Your task to perform on an android device: make emails show in primary in the gmail app Image 0: 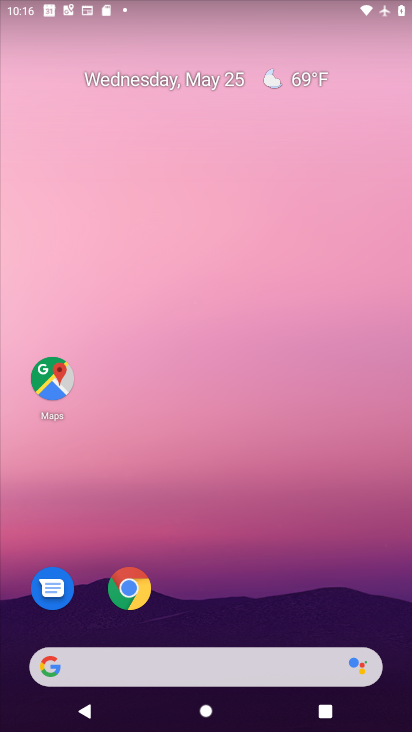
Step 0: drag from (376, 606) to (383, 189)
Your task to perform on an android device: make emails show in primary in the gmail app Image 1: 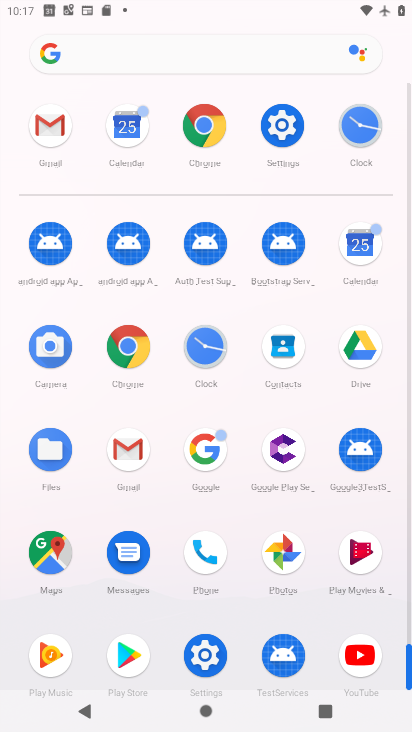
Step 1: click (144, 452)
Your task to perform on an android device: make emails show in primary in the gmail app Image 2: 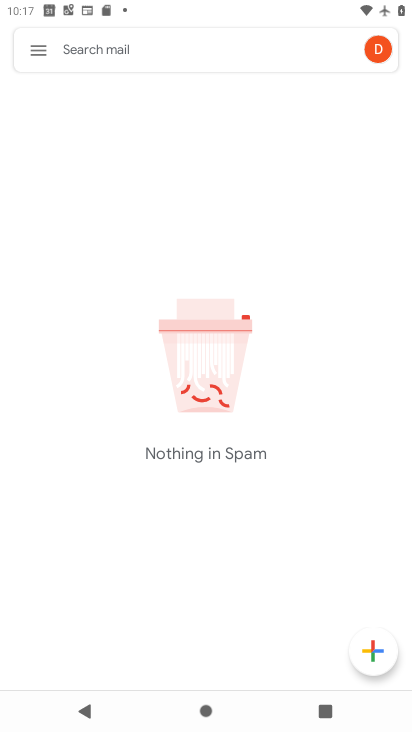
Step 2: click (41, 50)
Your task to perform on an android device: make emails show in primary in the gmail app Image 3: 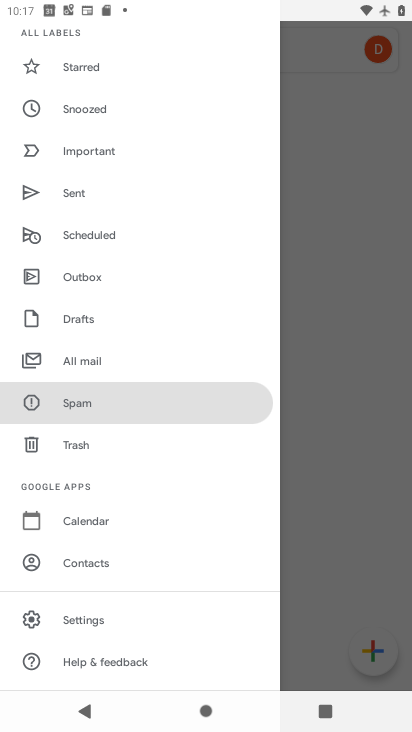
Step 3: drag from (217, 271) to (207, 348)
Your task to perform on an android device: make emails show in primary in the gmail app Image 4: 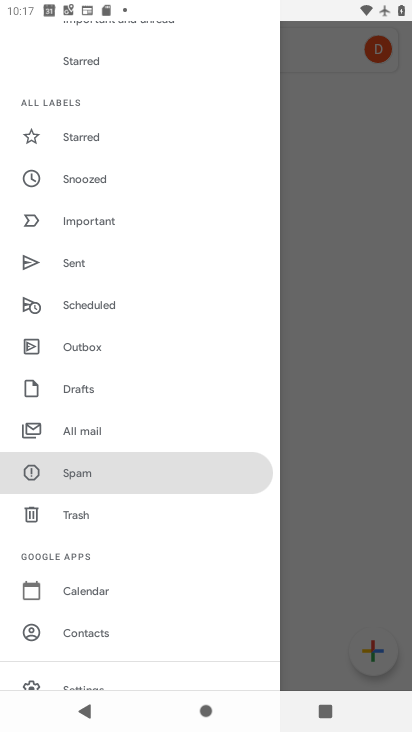
Step 4: drag from (210, 200) to (217, 289)
Your task to perform on an android device: make emails show in primary in the gmail app Image 5: 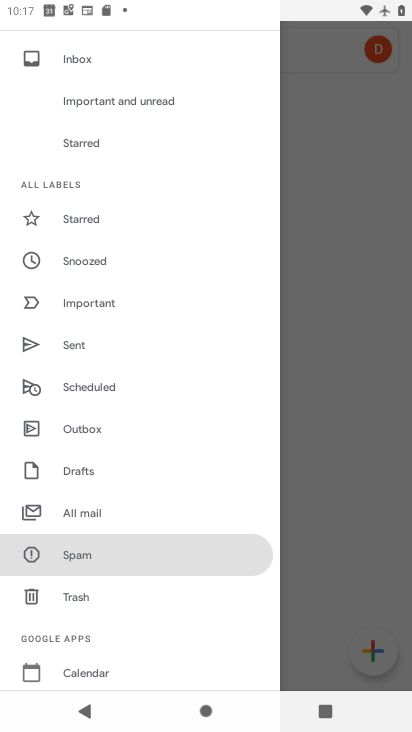
Step 5: drag from (210, 278) to (199, 417)
Your task to perform on an android device: make emails show in primary in the gmail app Image 6: 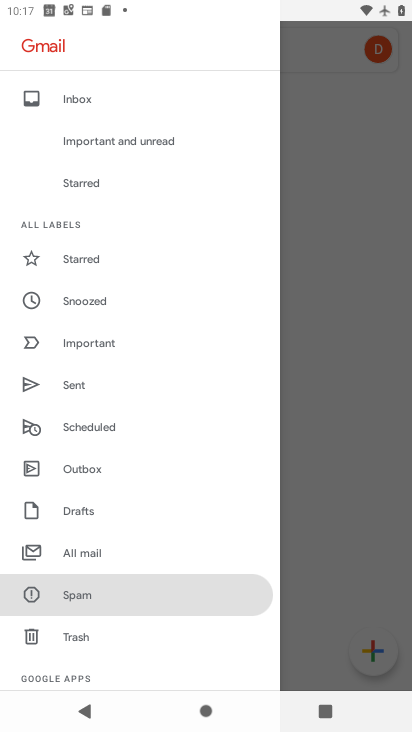
Step 6: drag from (212, 458) to (221, 400)
Your task to perform on an android device: make emails show in primary in the gmail app Image 7: 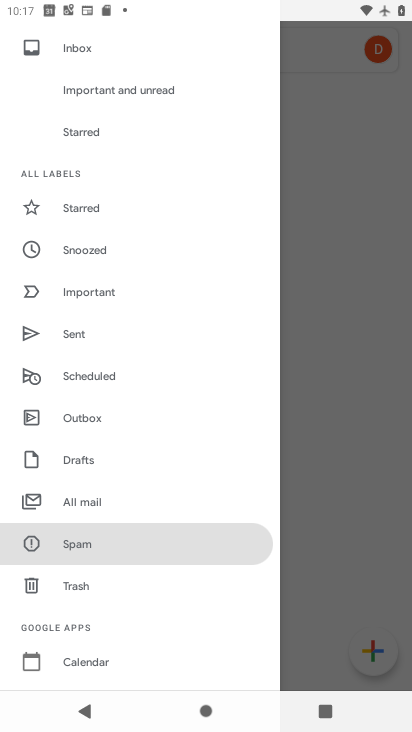
Step 7: drag from (221, 468) to (239, 415)
Your task to perform on an android device: make emails show in primary in the gmail app Image 8: 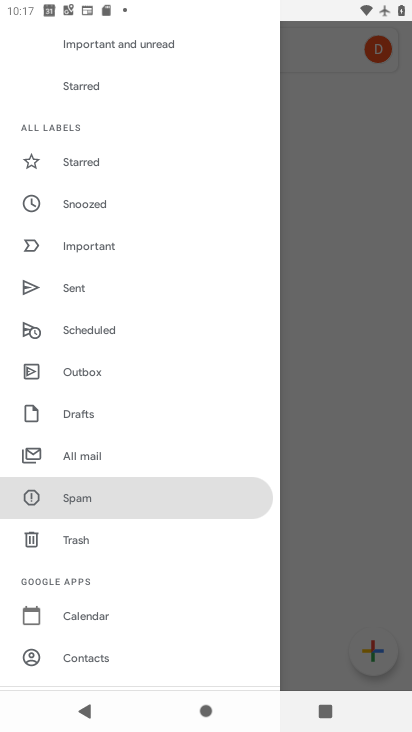
Step 8: drag from (256, 487) to (246, 442)
Your task to perform on an android device: make emails show in primary in the gmail app Image 9: 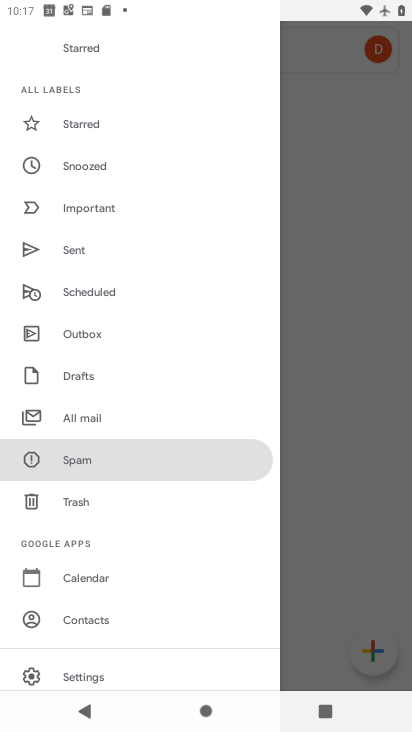
Step 9: drag from (227, 498) to (216, 419)
Your task to perform on an android device: make emails show in primary in the gmail app Image 10: 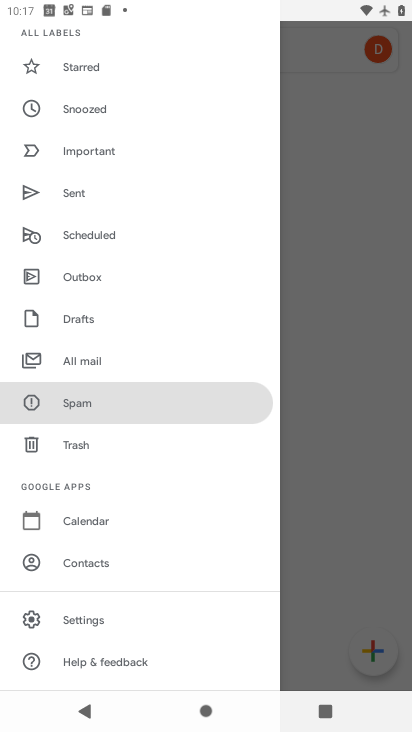
Step 10: drag from (205, 504) to (208, 410)
Your task to perform on an android device: make emails show in primary in the gmail app Image 11: 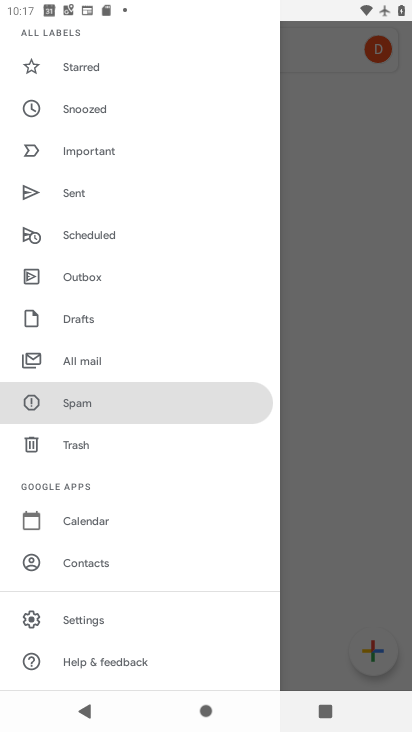
Step 11: click (95, 621)
Your task to perform on an android device: make emails show in primary in the gmail app Image 12: 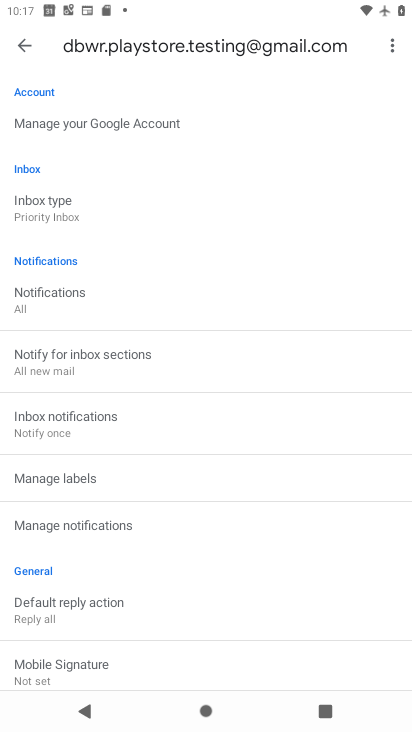
Step 12: drag from (221, 416) to (244, 368)
Your task to perform on an android device: make emails show in primary in the gmail app Image 13: 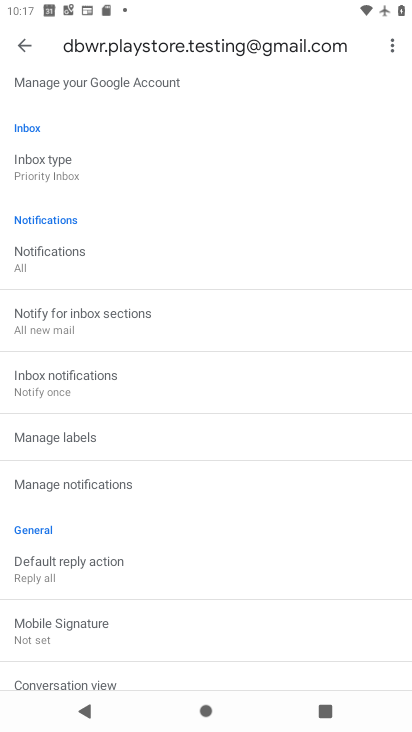
Step 13: drag from (256, 440) to (274, 385)
Your task to perform on an android device: make emails show in primary in the gmail app Image 14: 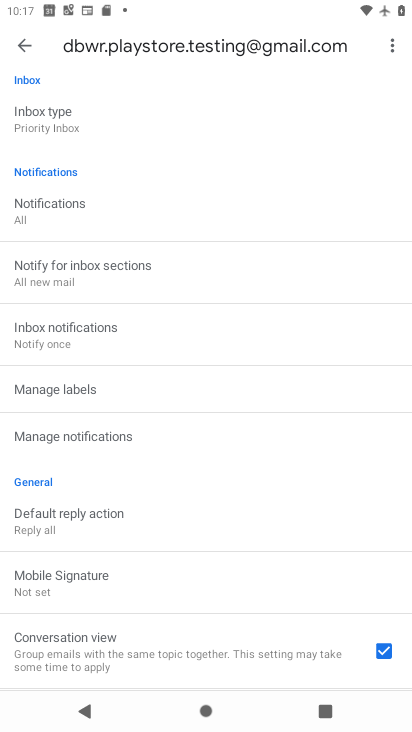
Step 14: drag from (281, 460) to (305, 391)
Your task to perform on an android device: make emails show in primary in the gmail app Image 15: 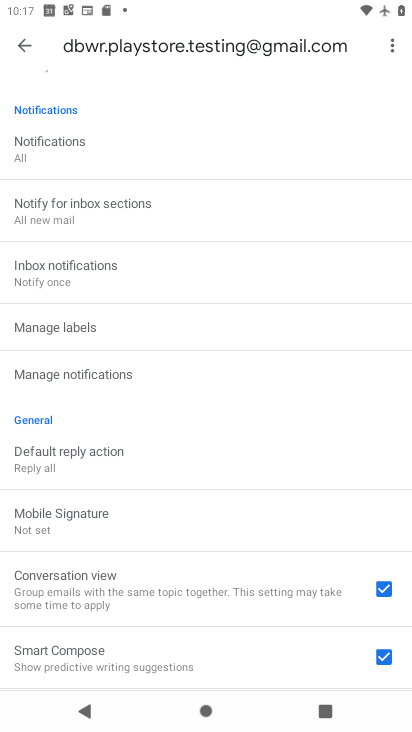
Step 15: drag from (288, 465) to (294, 403)
Your task to perform on an android device: make emails show in primary in the gmail app Image 16: 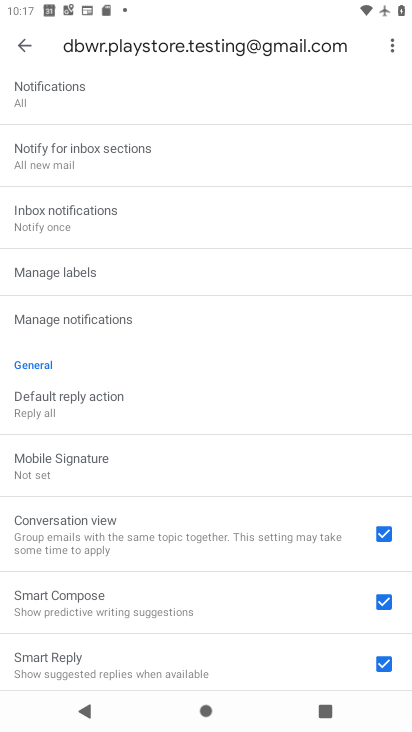
Step 16: drag from (284, 511) to (292, 456)
Your task to perform on an android device: make emails show in primary in the gmail app Image 17: 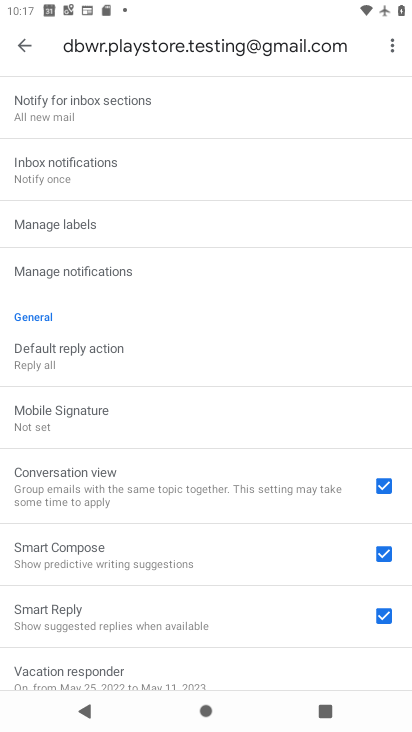
Step 17: drag from (270, 514) to (268, 437)
Your task to perform on an android device: make emails show in primary in the gmail app Image 18: 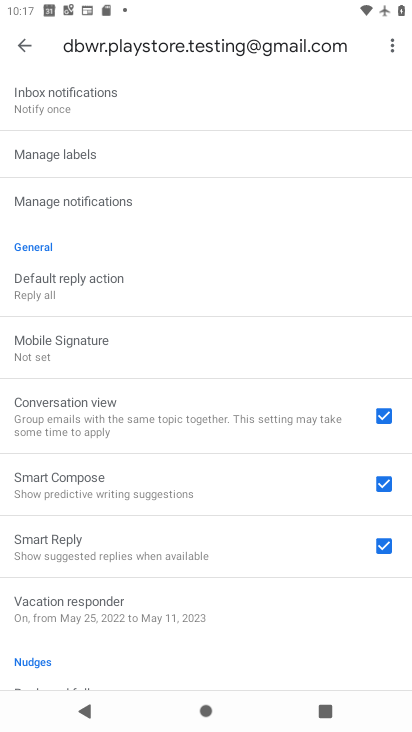
Step 18: drag from (264, 528) to (273, 475)
Your task to perform on an android device: make emails show in primary in the gmail app Image 19: 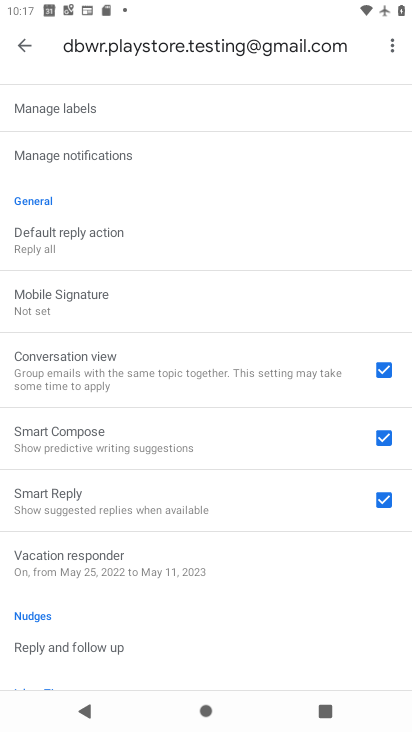
Step 19: drag from (257, 537) to (269, 477)
Your task to perform on an android device: make emails show in primary in the gmail app Image 20: 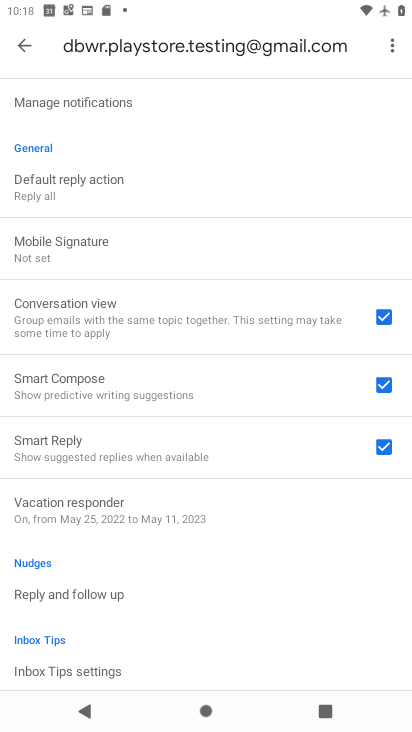
Step 20: drag from (261, 537) to (273, 491)
Your task to perform on an android device: make emails show in primary in the gmail app Image 21: 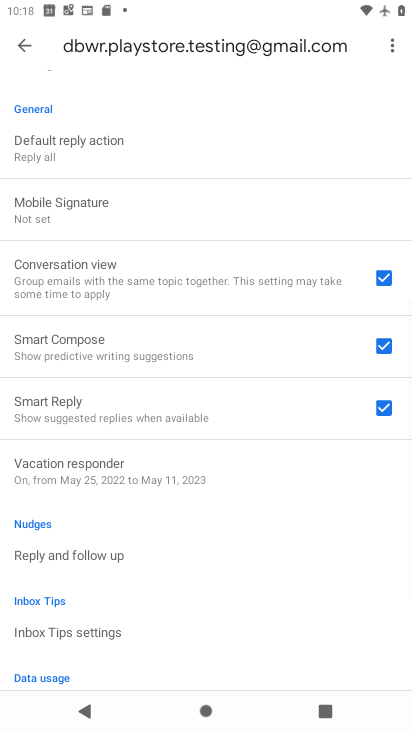
Step 21: drag from (269, 541) to (280, 469)
Your task to perform on an android device: make emails show in primary in the gmail app Image 22: 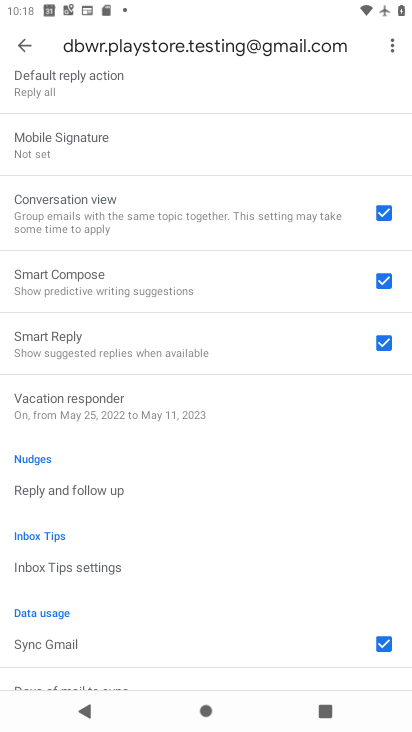
Step 22: drag from (275, 550) to (286, 484)
Your task to perform on an android device: make emails show in primary in the gmail app Image 23: 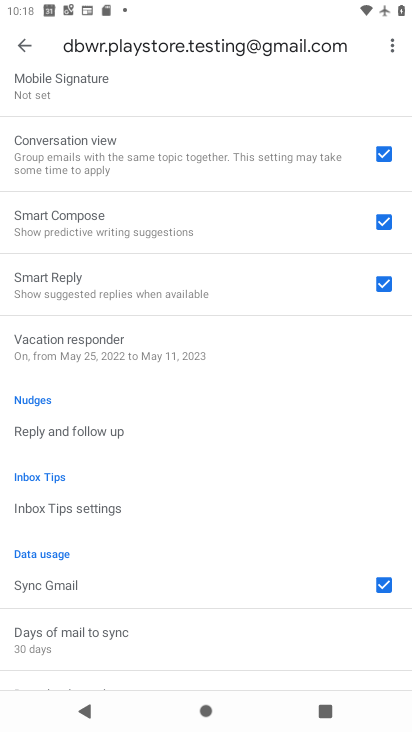
Step 23: drag from (260, 554) to (266, 477)
Your task to perform on an android device: make emails show in primary in the gmail app Image 24: 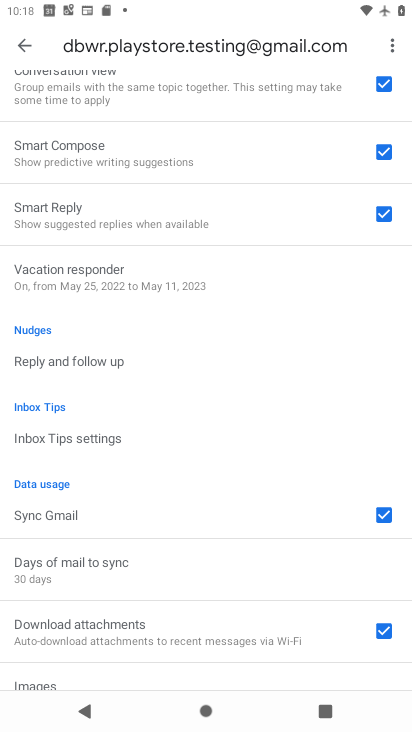
Step 24: drag from (241, 542) to (259, 435)
Your task to perform on an android device: make emails show in primary in the gmail app Image 25: 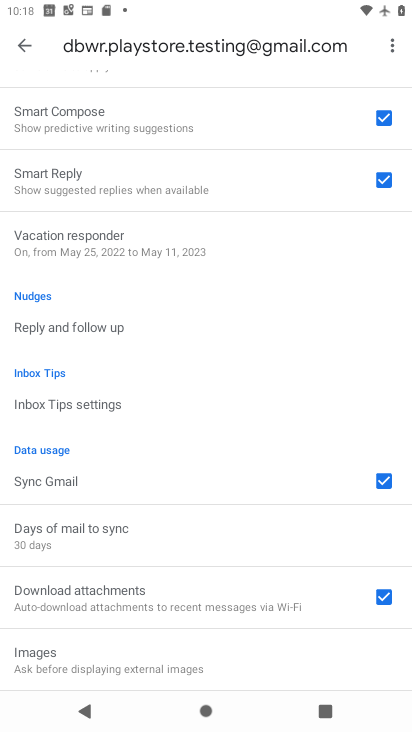
Step 25: drag from (265, 502) to (282, 421)
Your task to perform on an android device: make emails show in primary in the gmail app Image 26: 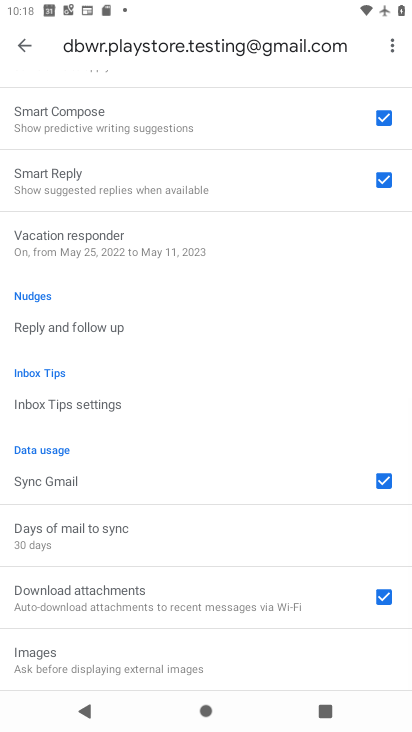
Step 26: drag from (271, 273) to (279, 341)
Your task to perform on an android device: make emails show in primary in the gmail app Image 27: 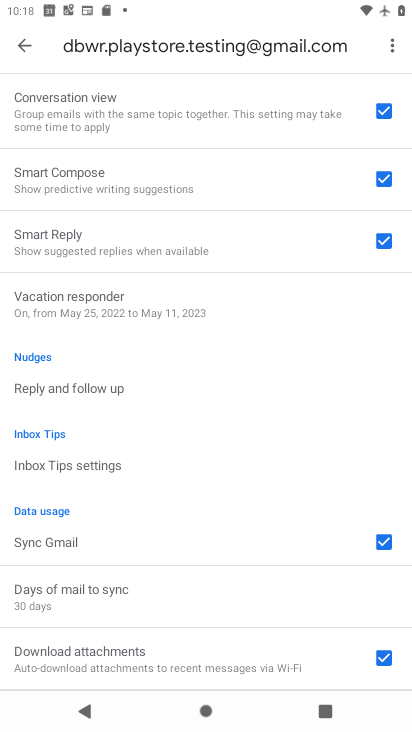
Step 27: drag from (267, 255) to (268, 320)
Your task to perform on an android device: make emails show in primary in the gmail app Image 28: 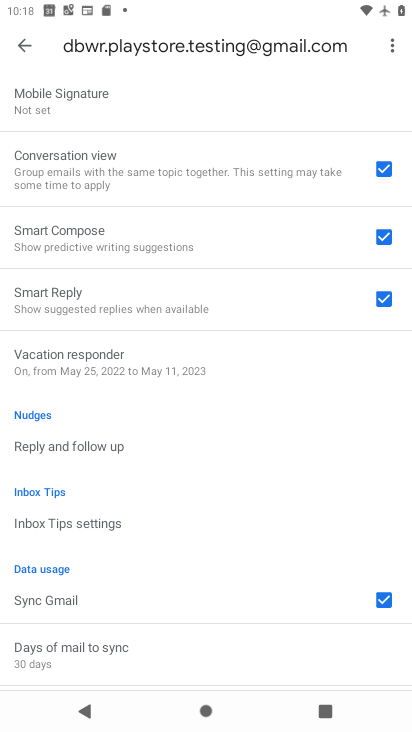
Step 28: drag from (273, 239) to (265, 366)
Your task to perform on an android device: make emails show in primary in the gmail app Image 29: 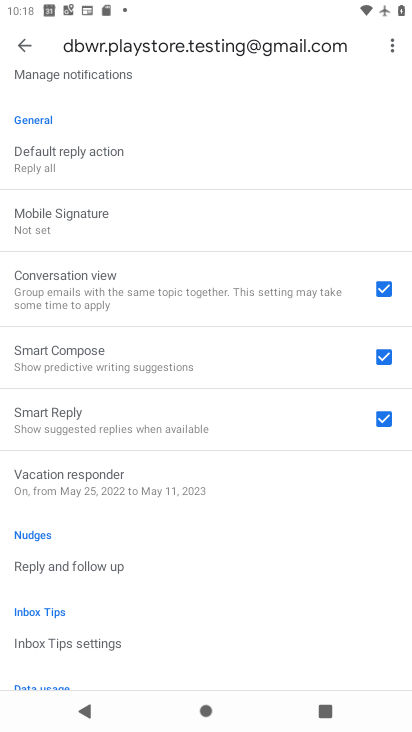
Step 29: drag from (246, 206) to (250, 344)
Your task to perform on an android device: make emails show in primary in the gmail app Image 30: 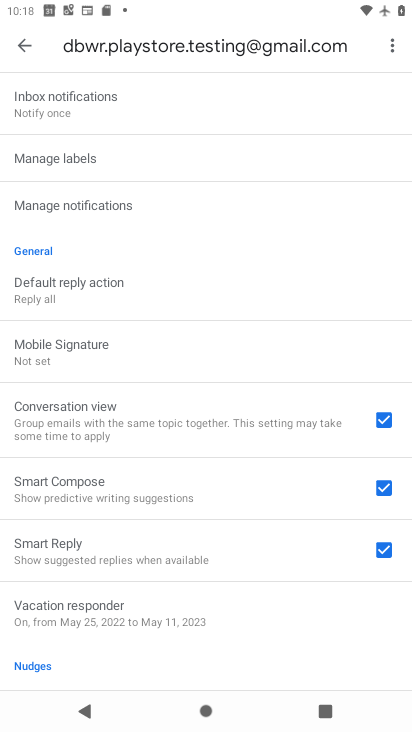
Step 30: drag from (239, 204) to (233, 339)
Your task to perform on an android device: make emails show in primary in the gmail app Image 31: 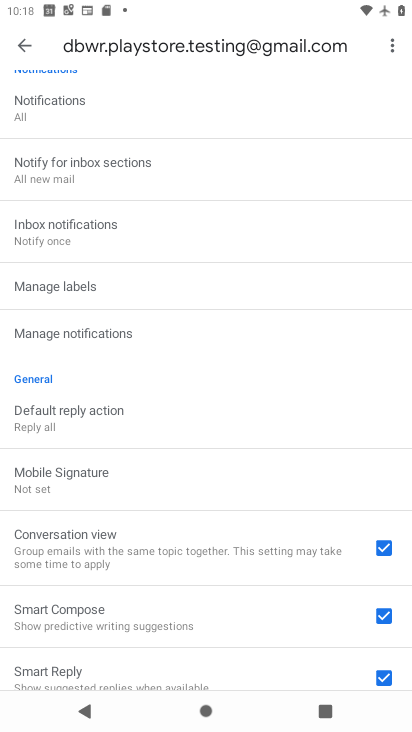
Step 31: drag from (235, 162) to (251, 276)
Your task to perform on an android device: make emails show in primary in the gmail app Image 32: 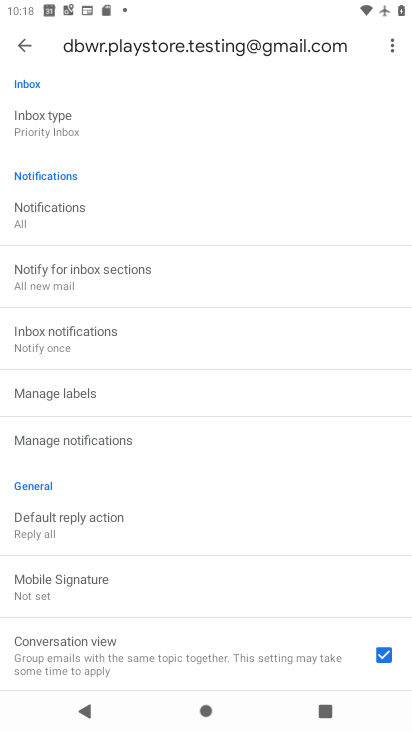
Step 32: drag from (228, 158) to (238, 266)
Your task to perform on an android device: make emails show in primary in the gmail app Image 33: 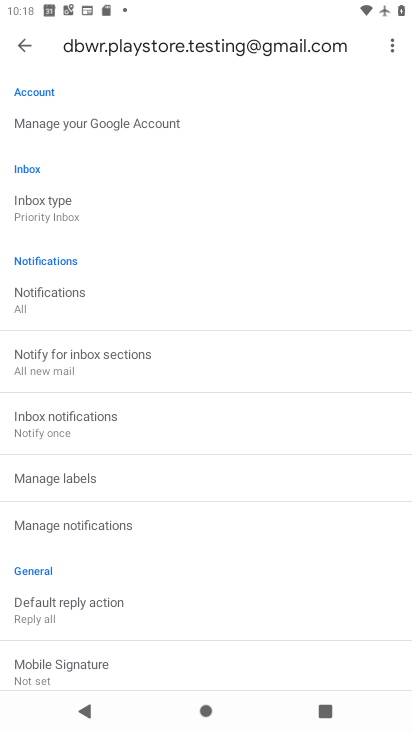
Step 33: click (65, 213)
Your task to perform on an android device: make emails show in primary in the gmail app Image 34: 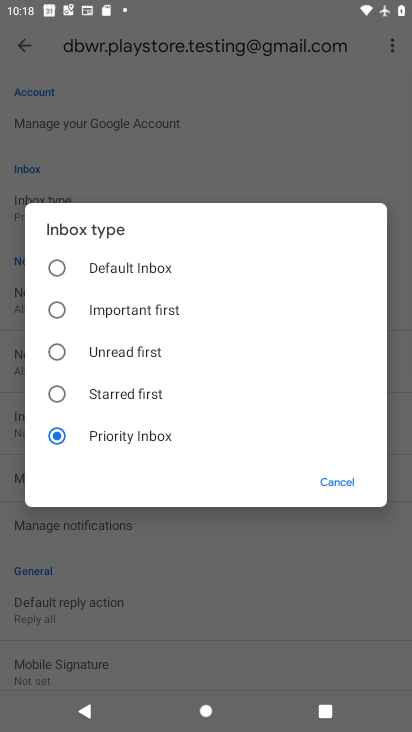
Step 34: click (169, 264)
Your task to perform on an android device: make emails show in primary in the gmail app Image 35: 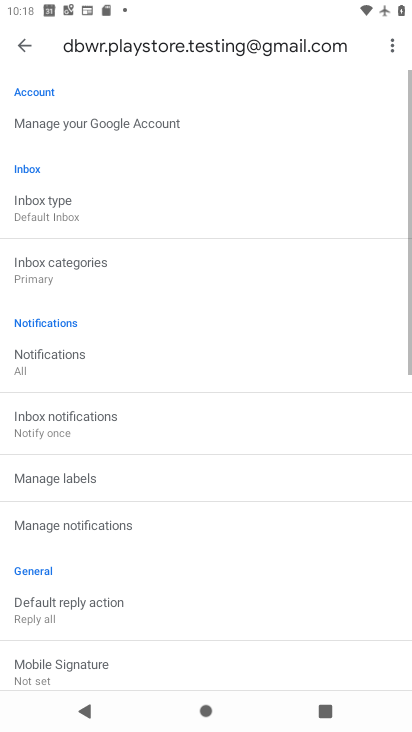
Step 35: click (121, 270)
Your task to perform on an android device: make emails show in primary in the gmail app Image 36: 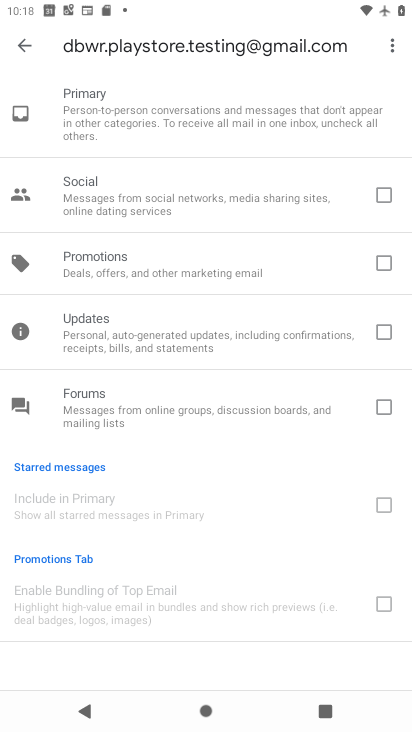
Step 36: task complete